Your task to perform on an android device: turn off translation in the chrome app Image 0: 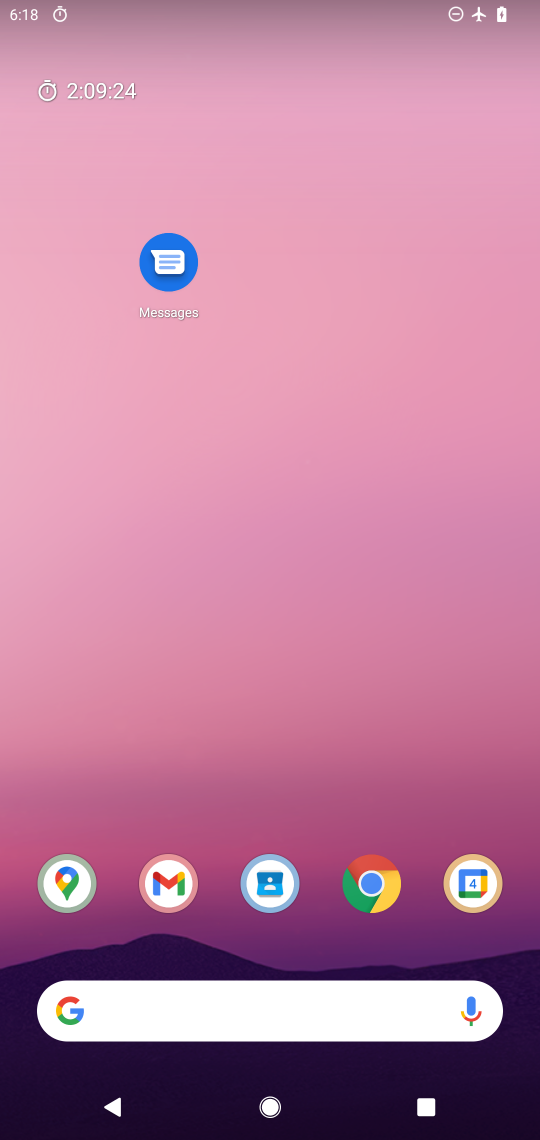
Step 0: click (375, 891)
Your task to perform on an android device: turn off translation in the chrome app Image 1: 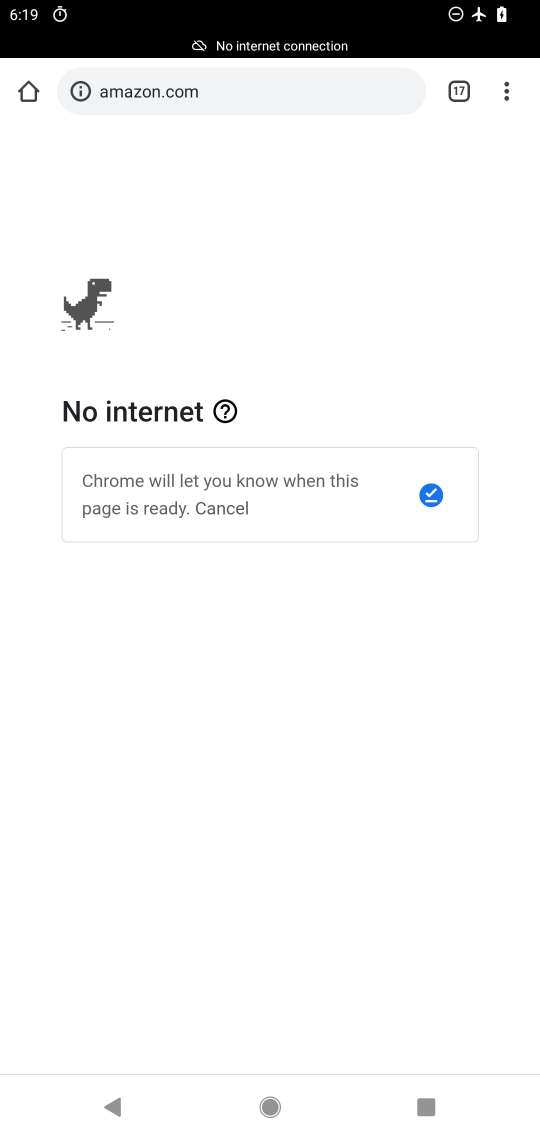
Step 1: click (504, 95)
Your task to perform on an android device: turn off translation in the chrome app Image 2: 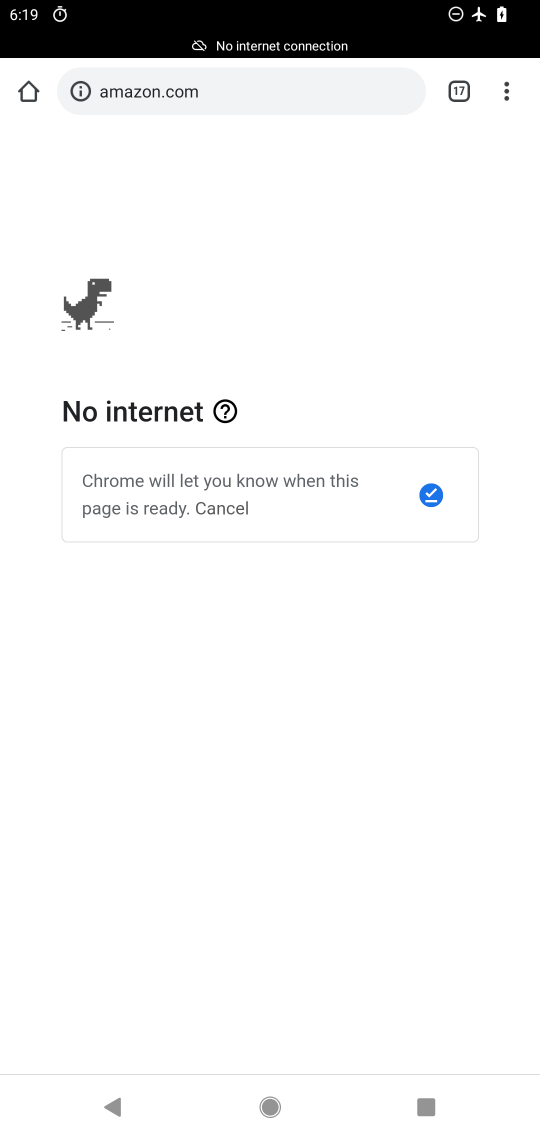
Step 2: click (507, 96)
Your task to perform on an android device: turn off translation in the chrome app Image 3: 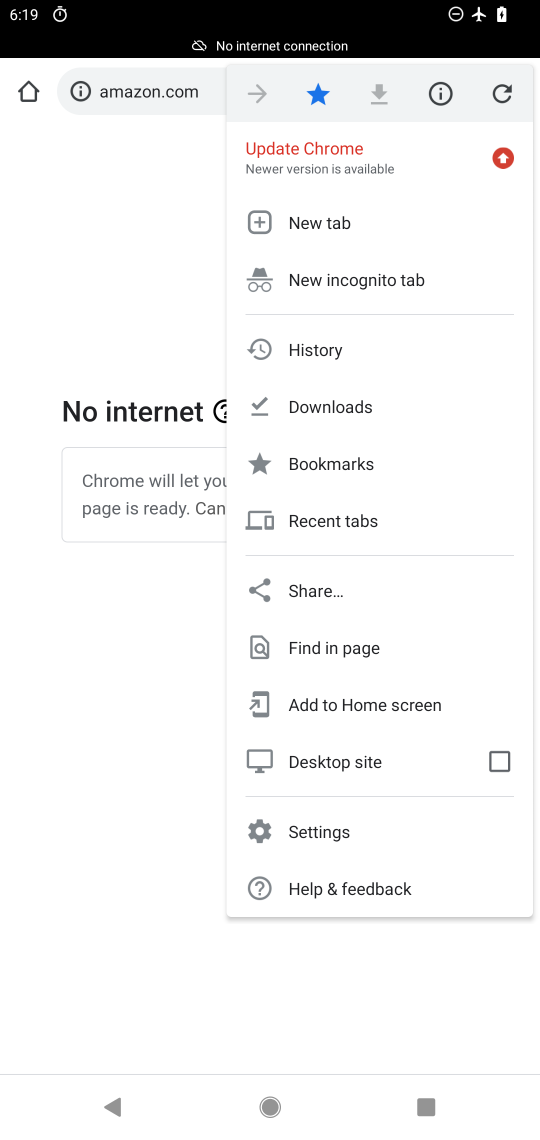
Step 3: click (310, 827)
Your task to perform on an android device: turn off translation in the chrome app Image 4: 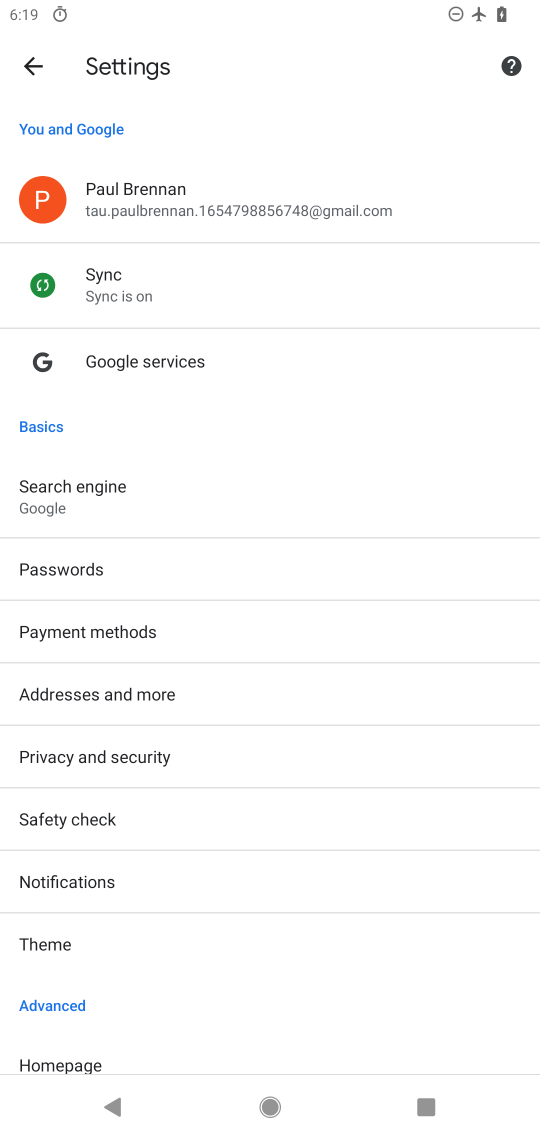
Step 4: drag from (177, 990) to (214, 493)
Your task to perform on an android device: turn off translation in the chrome app Image 5: 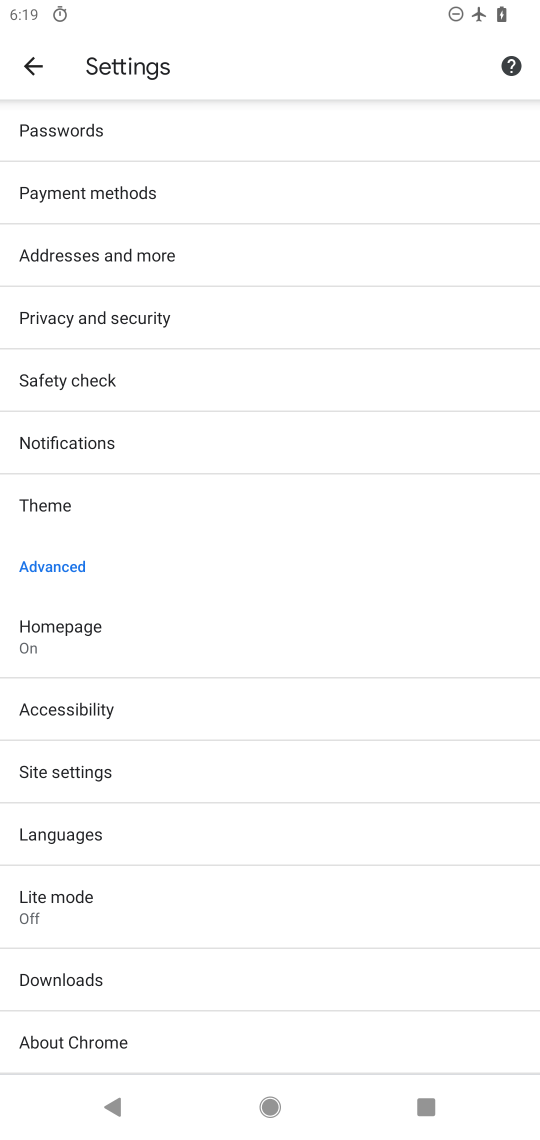
Step 5: click (60, 832)
Your task to perform on an android device: turn off translation in the chrome app Image 6: 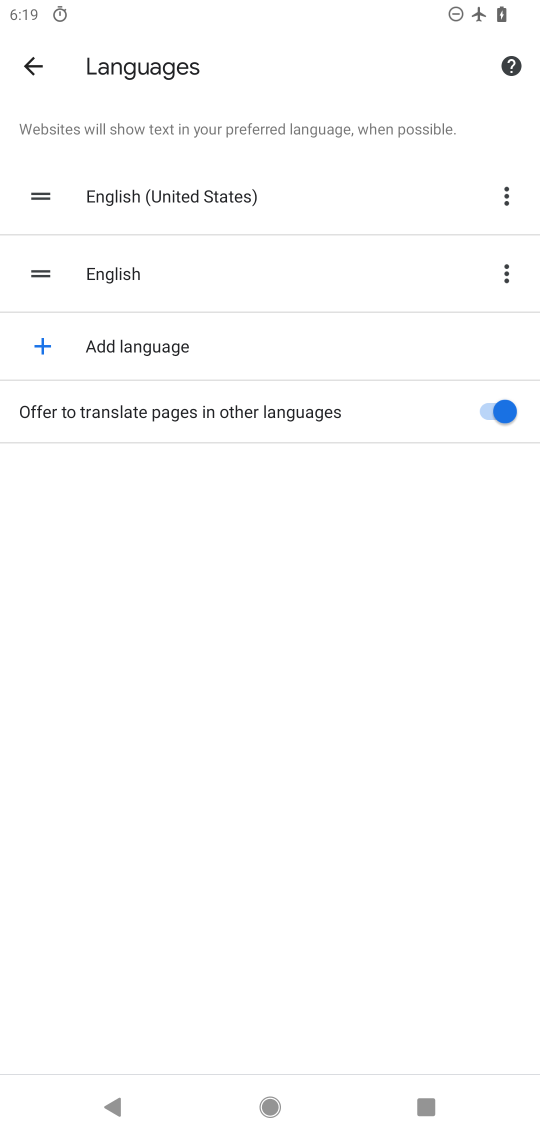
Step 6: click (485, 410)
Your task to perform on an android device: turn off translation in the chrome app Image 7: 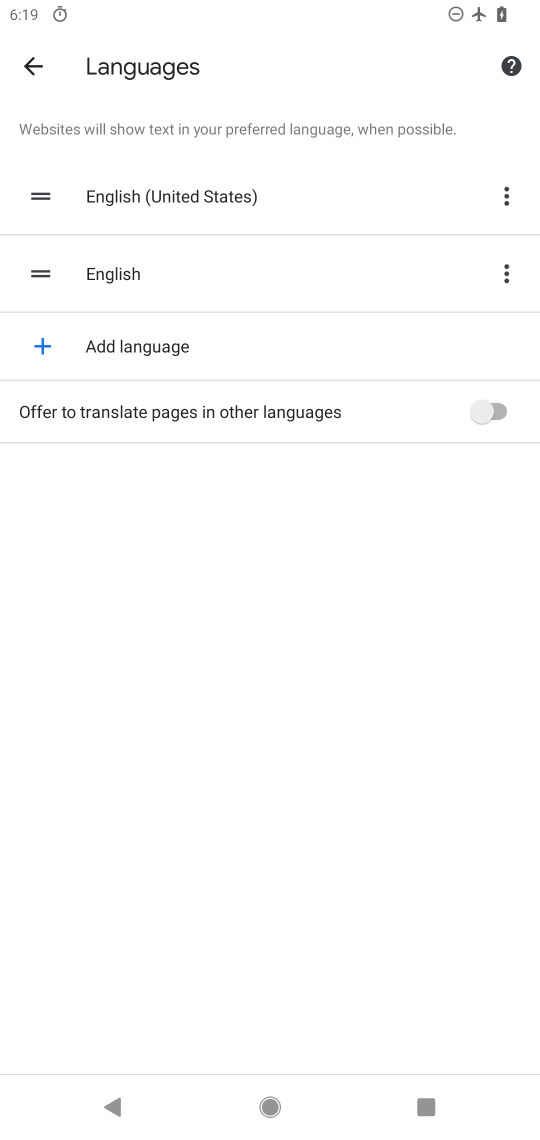
Step 7: task complete